Your task to perform on an android device: open device folders in google photos Image 0: 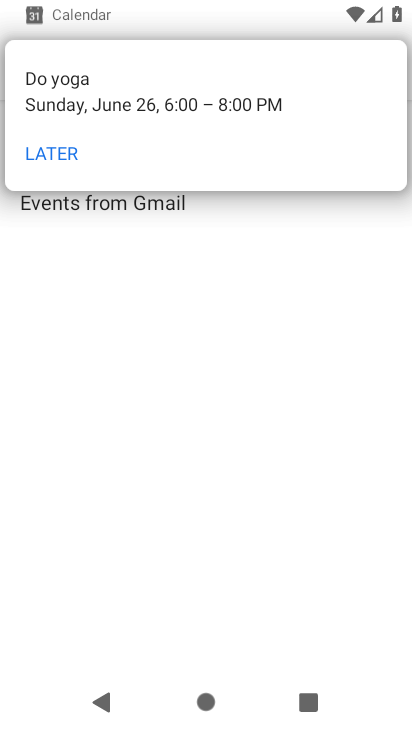
Step 0: press home button
Your task to perform on an android device: open device folders in google photos Image 1: 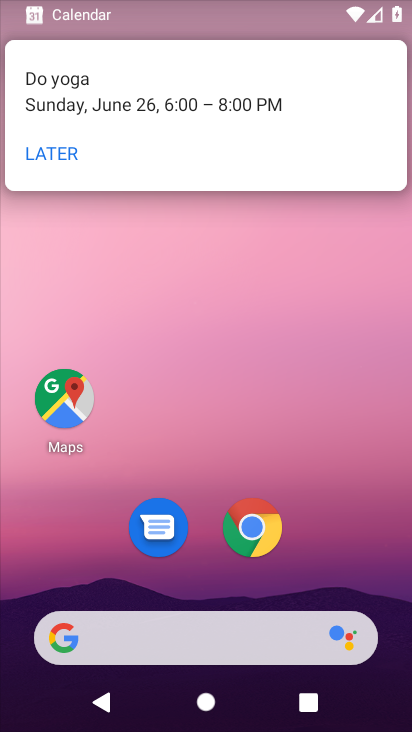
Step 1: click (398, 617)
Your task to perform on an android device: open device folders in google photos Image 2: 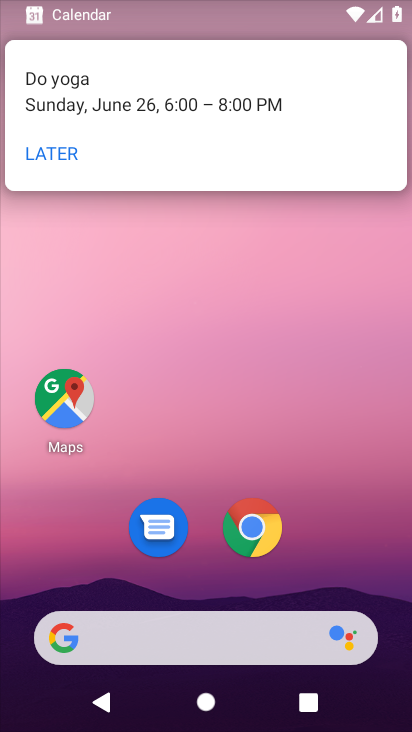
Step 2: drag from (394, 541) to (355, 40)
Your task to perform on an android device: open device folders in google photos Image 3: 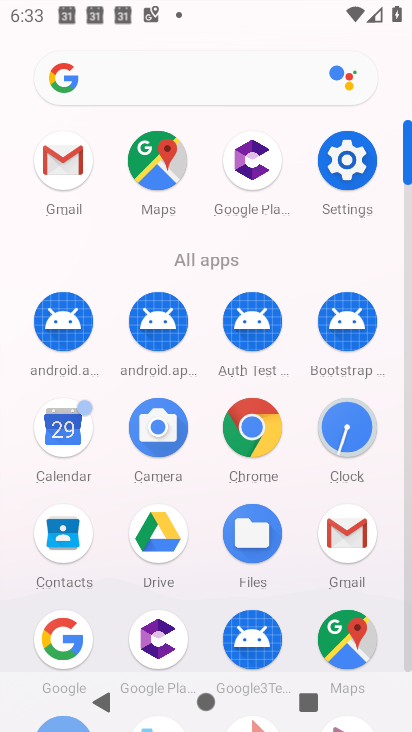
Step 3: drag from (210, 619) to (219, 229)
Your task to perform on an android device: open device folders in google photos Image 4: 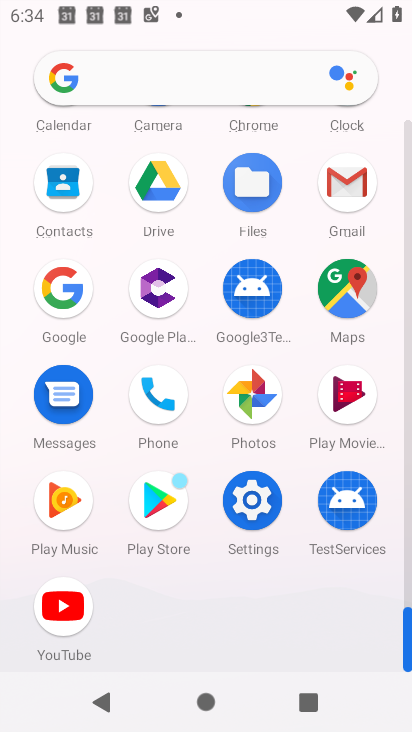
Step 4: click (248, 396)
Your task to perform on an android device: open device folders in google photos Image 5: 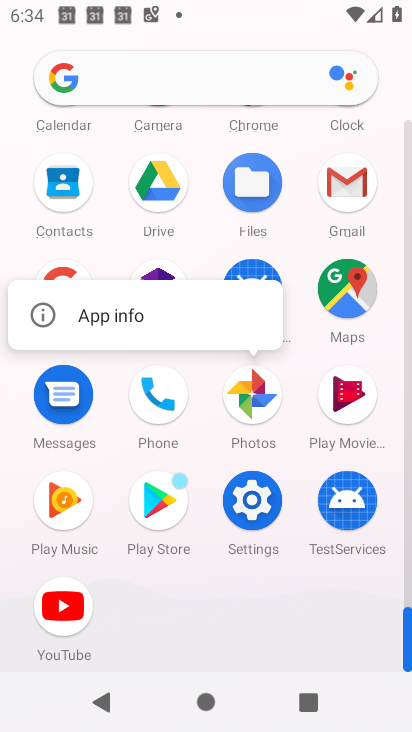
Step 5: click (236, 391)
Your task to perform on an android device: open device folders in google photos Image 6: 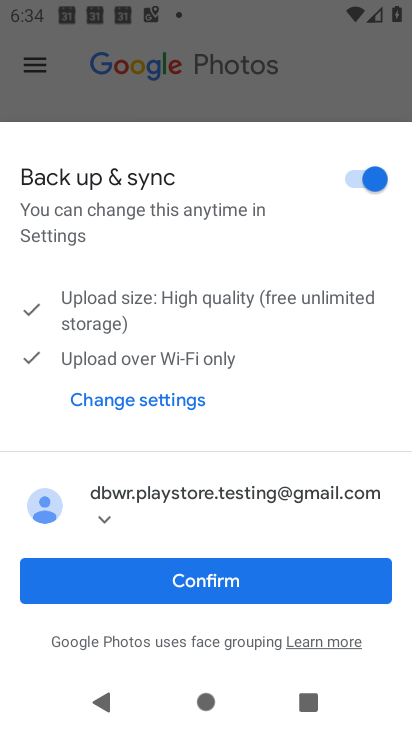
Step 6: click (241, 580)
Your task to perform on an android device: open device folders in google photos Image 7: 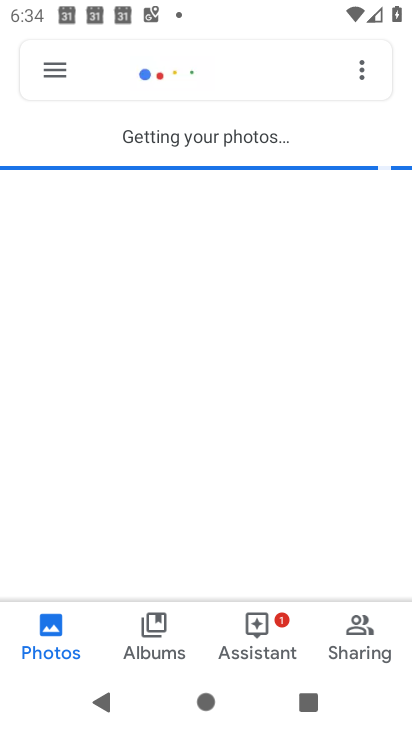
Step 7: click (45, 63)
Your task to perform on an android device: open device folders in google photos Image 8: 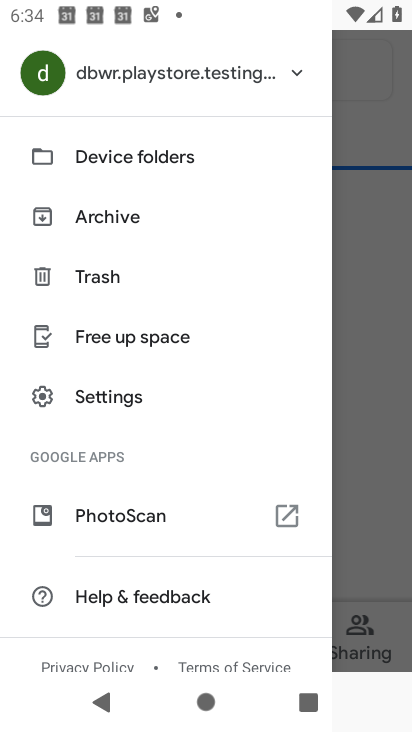
Step 8: click (96, 154)
Your task to perform on an android device: open device folders in google photos Image 9: 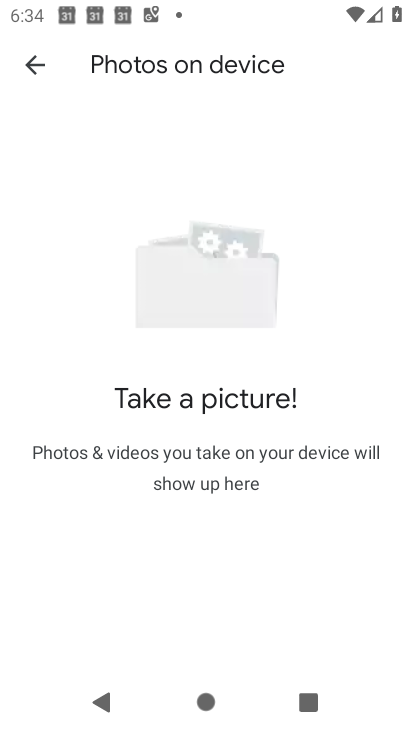
Step 9: task complete